Your task to perform on an android device: empty trash in the gmail app Image 0: 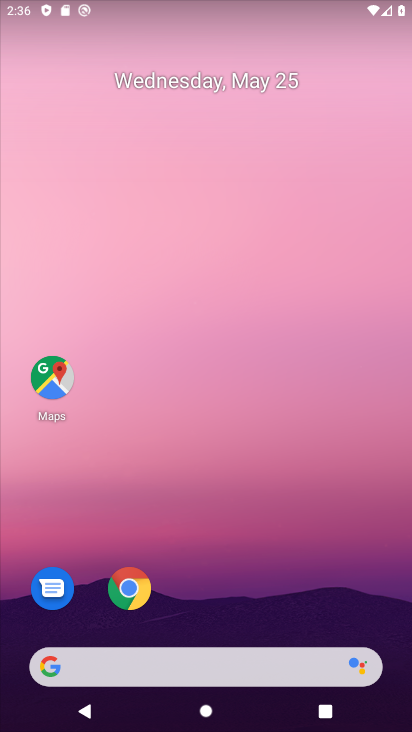
Step 0: press home button
Your task to perform on an android device: empty trash in the gmail app Image 1: 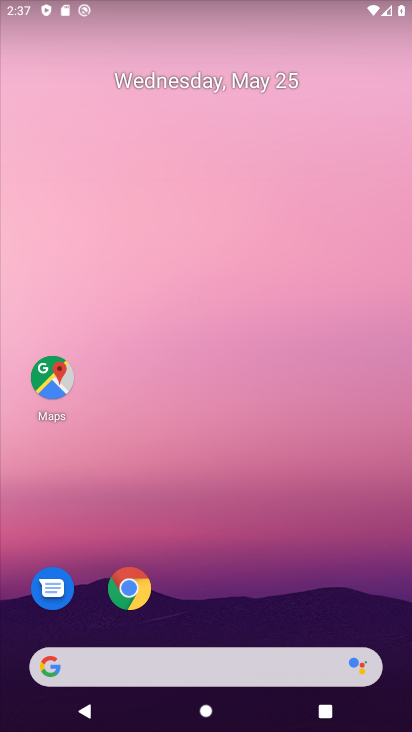
Step 1: drag from (397, 715) to (146, 140)
Your task to perform on an android device: empty trash in the gmail app Image 2: 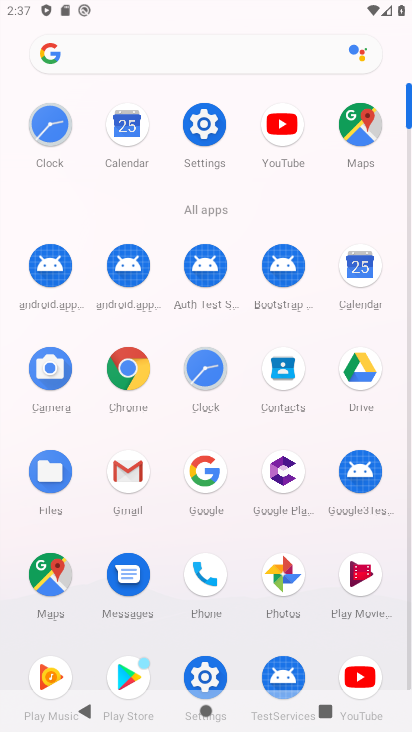
Step 2: click (127, 478)
Your task to perform on an android device: empty trash in the gmail app Image 3: 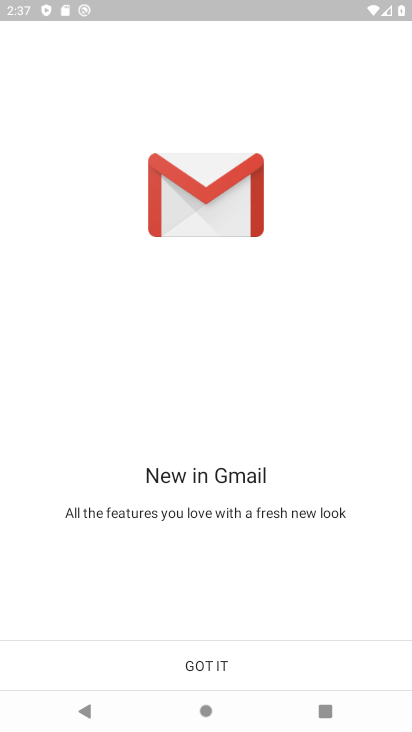
Step 3: click (197, 680)
Your task to perform on an android device: empty trash in the gmail app Image 4: 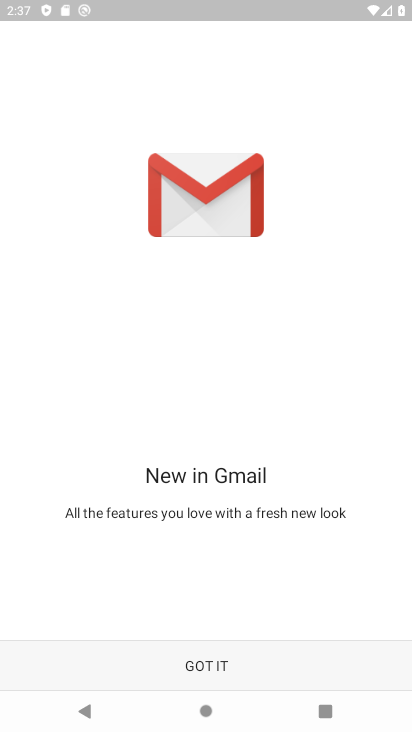
Step 4: click (197, 680)
Your task to perform on an android device: empty trash in the gmail app Image 5: 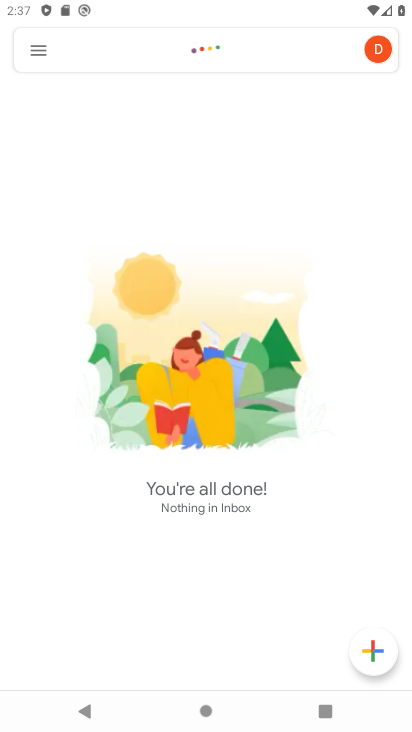
Step 5: click (45, 53)
Your task to perform on an android device: empty trash in the gmail app Image 6: 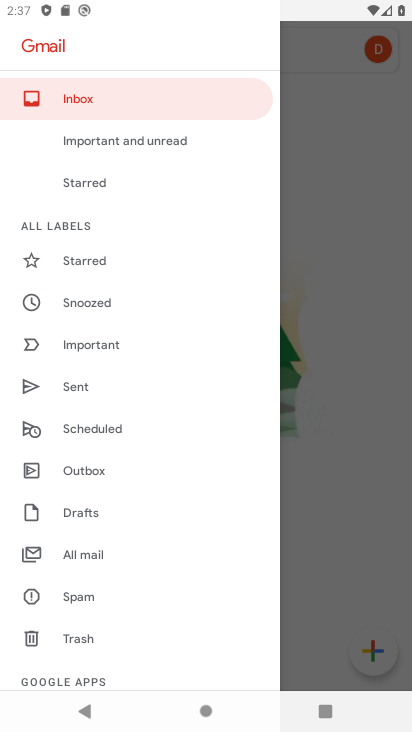
Step 6: click (98, 641)
Your task to perform on an android device: empty trash in the gmail app Image 7: 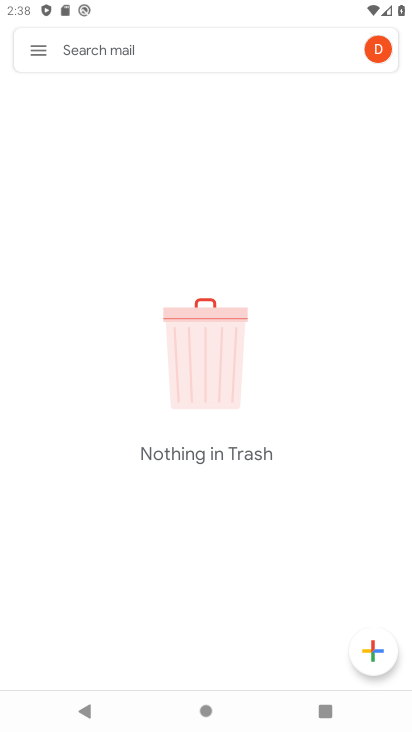
Step 7: task complete